Your task to perform on an android device: Open settings Image 0: 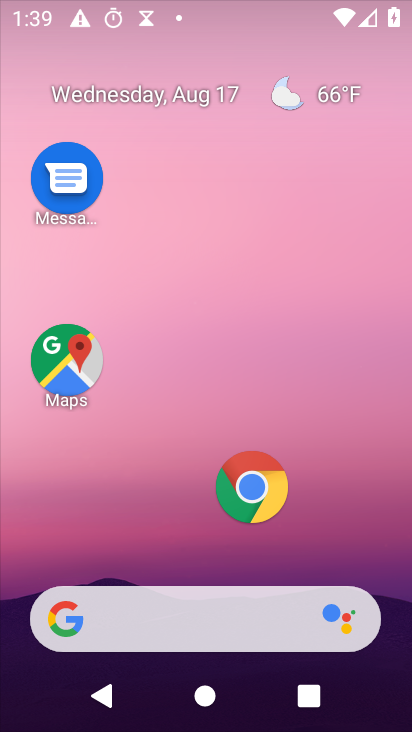
Step 0: press home button
Your task to perform on an android device: Open settings Image 1: 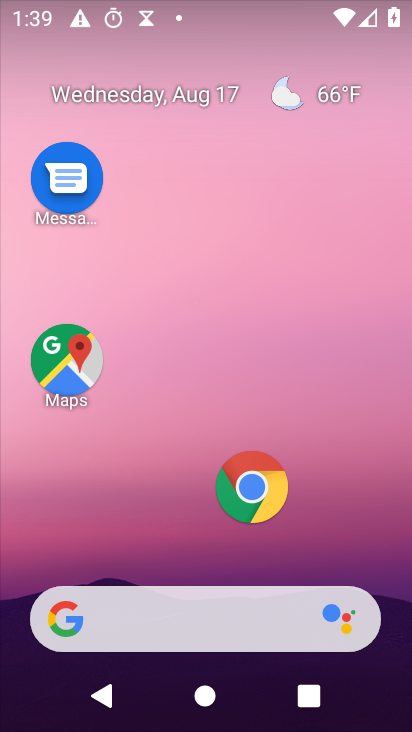
Step 1: drag from (166, 529) to (359, 11)
Your task to perform on an android device: Open settings Image 2: 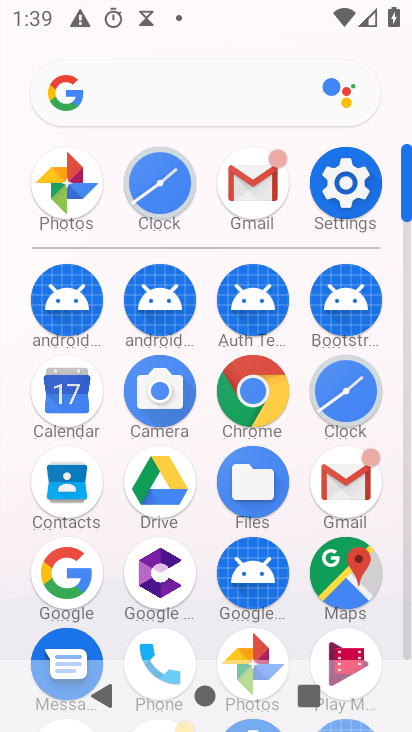
Step 2: click (341, 193)
Your task to perform on an android device: Open settings Image 3: 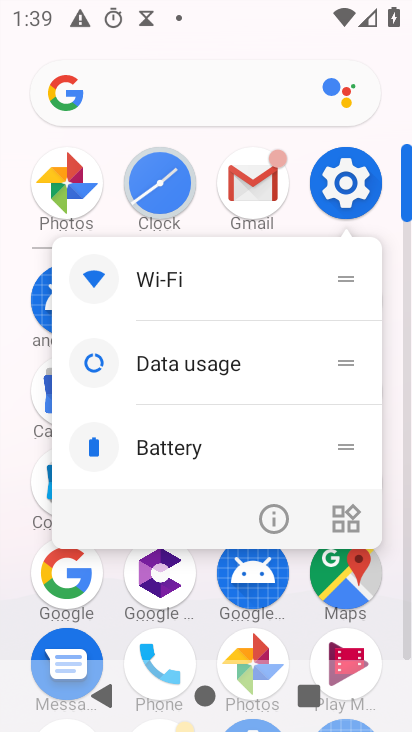
Step 3: click (343, 204)
Your task to perform on an android device: Open settings Image 4: 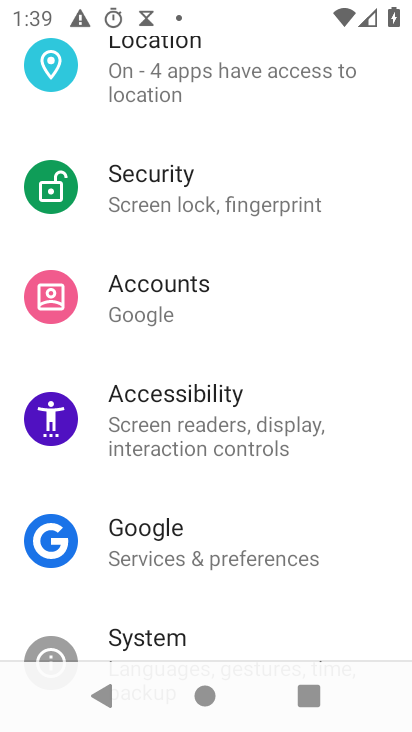
Step 4: task complete